Your task to perform on an android device: set an alarm Image 0: 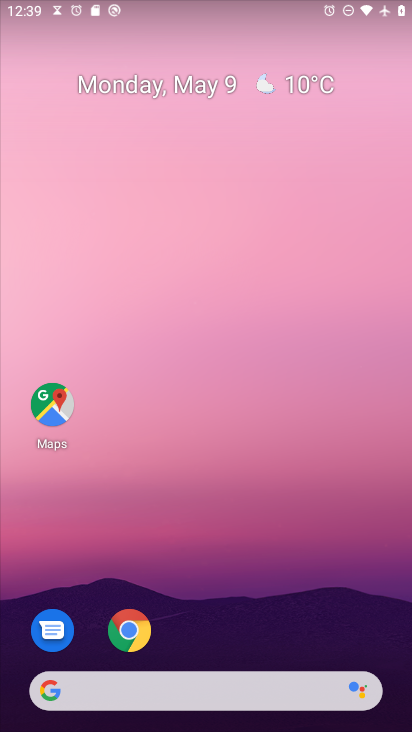
Step 0: drag from (239, 640) to (373, 80)
Your task to perform on an android device: set an alarm Image 1: 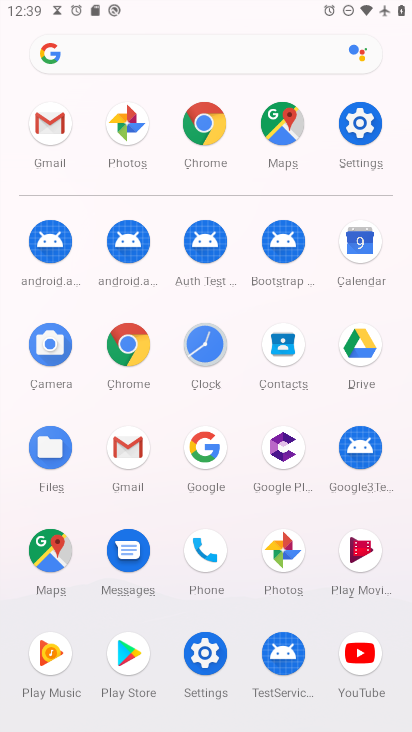
Step 1: click (208, 353)
Your task to perform on an android device: set an alarm Image 2: 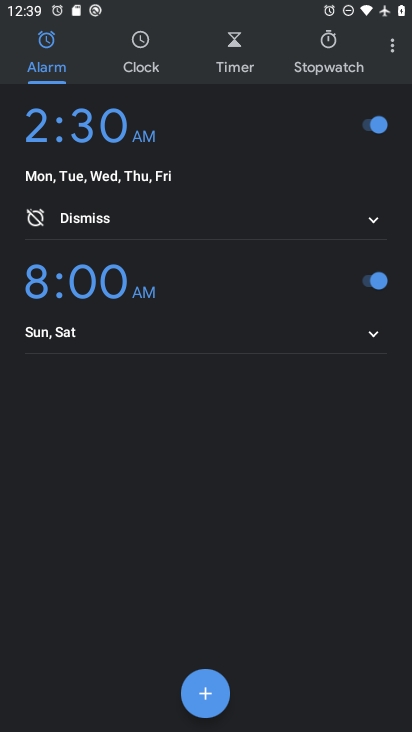
Step 2: task complete